Your task to perform on an android device: move a message to another label in the gmail app Image 0: 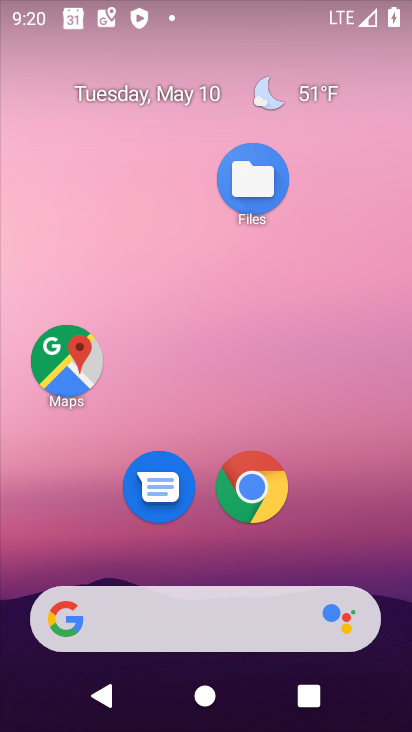
Step 0: drag from (201, 546) to (209, 62)
Your task to perform on an android device: move a message to another label in the gmail app Image 1: 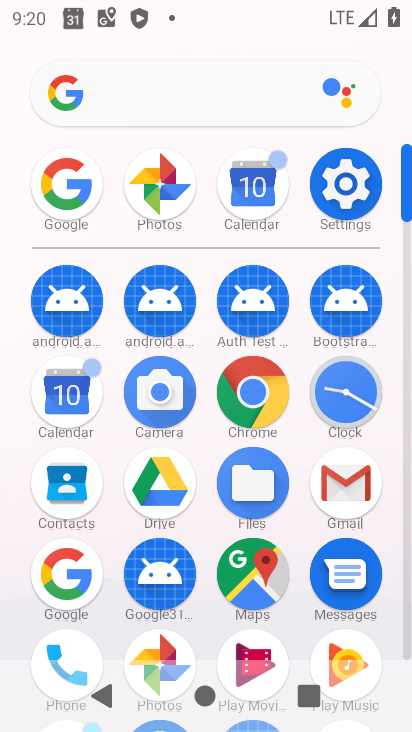
Step 1: click (340, 484)
Your task to perform on an android device: move a message to another label in the gmail app Image 2: 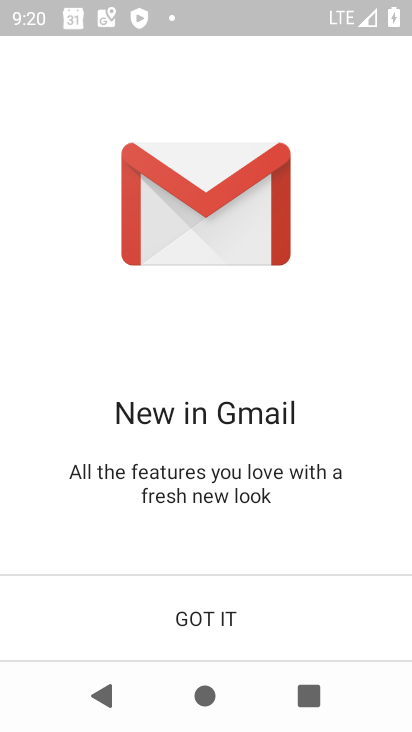
Step 2: click (196, 611)
Your task to perform on an android device: move a message to another label in the gmail app Image 3: 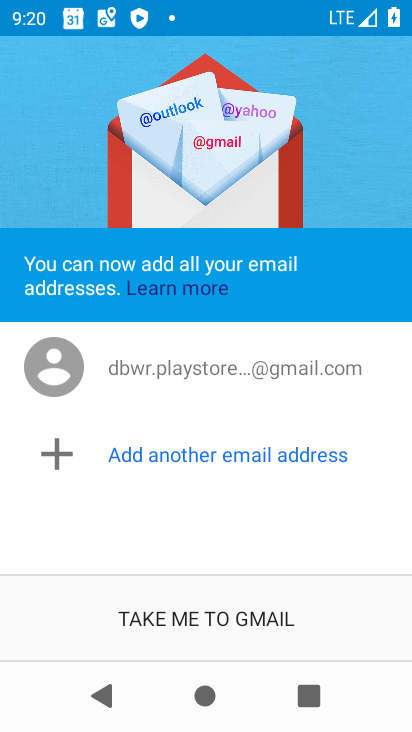
Step 3: click (207, 612)
Your task to perform on an android device: move a message to another label in the gmail app Image 4: 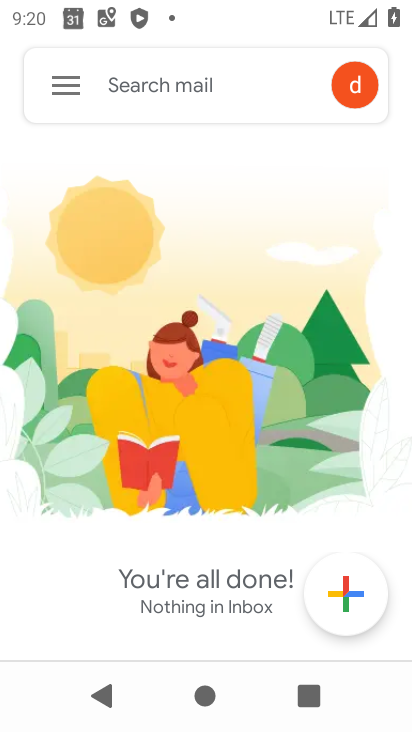
Step 4: click (64, 89)
Your task to perform on an android device: move a message to another label in the gmail app Image 5: 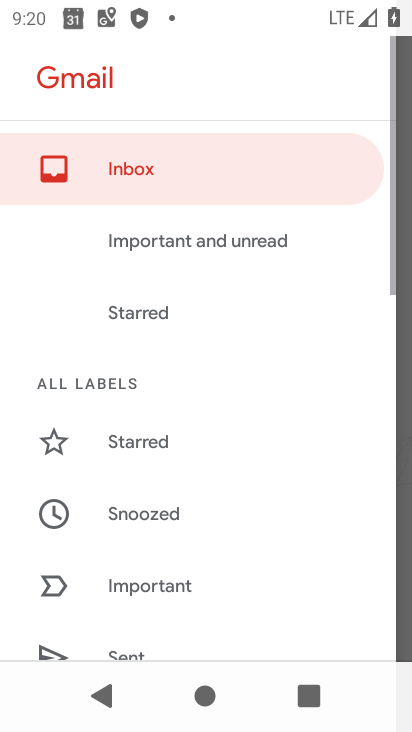
Step 5: drag from (188, 551) to (183, 146)
Your task to perform on an android device: move a message to another label in the gmail app Image 6: 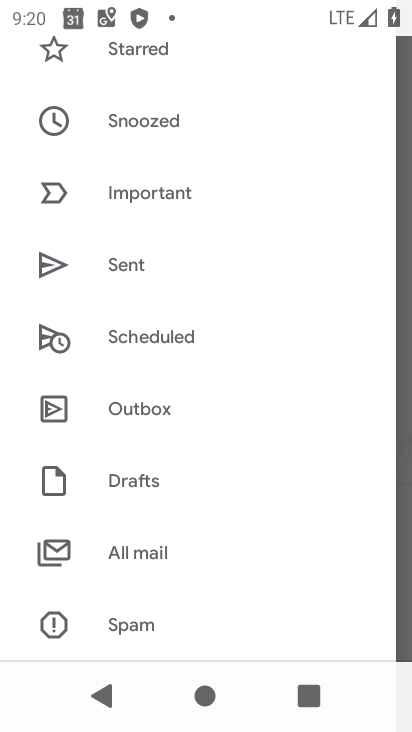
Step 6: click (156, 563)
Your task to perform on an android device: move a message to another label in the gmail app Image 7: 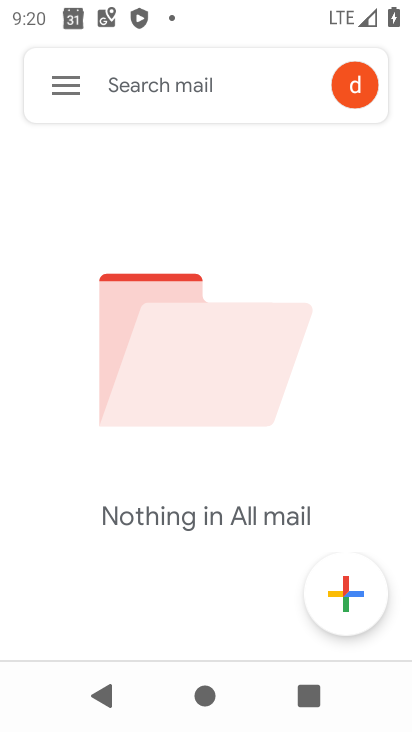
Step 7: task complete